Your task to perform on an android device: Go to privacy settings Image 0: 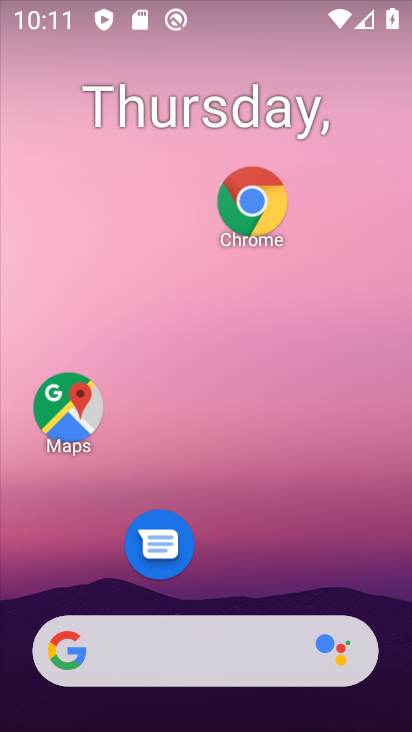
Step 0: drag from (251, 174) to (253, 64)
Your task to perform on an android device: Go to privacy settings Image 1: 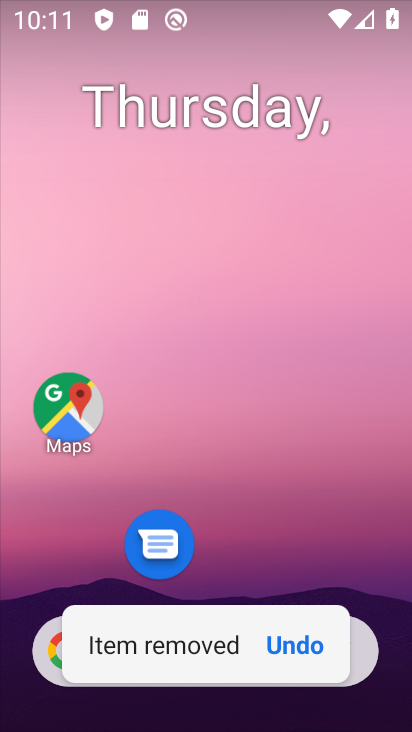
Step 1: click (276, 647)
Your task to perform on an android device: Go to privacy settings Image 2: 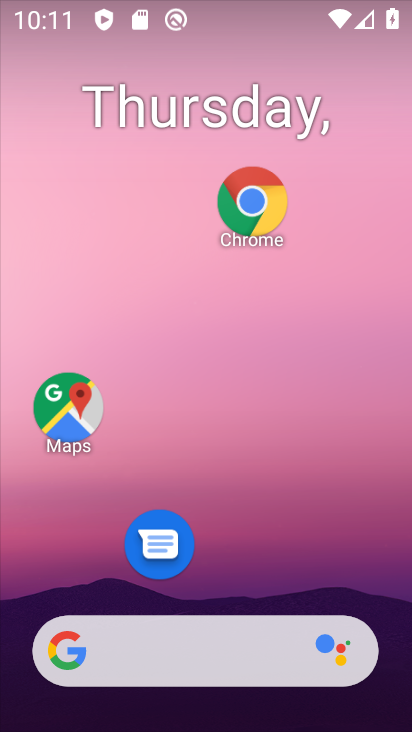
Step 2: drag from (319, 547) to (344, 94)
Your task to perform on an android device: Go to privacy settings Image 3: 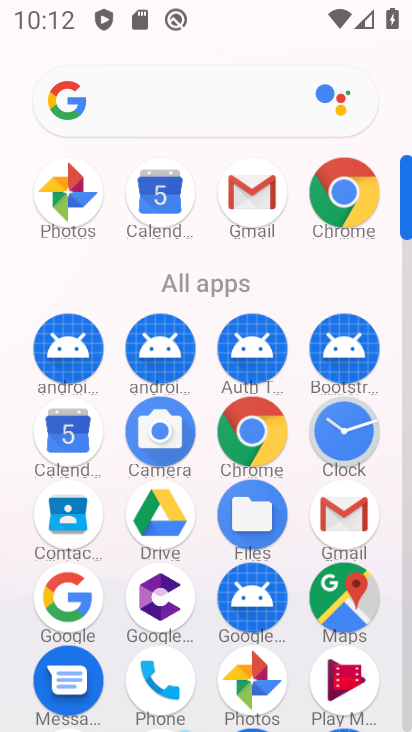
Step 3: drag from (203, 392) to (241, 34)
Your task to perform on an android device: Go to privacy settings Image 4: 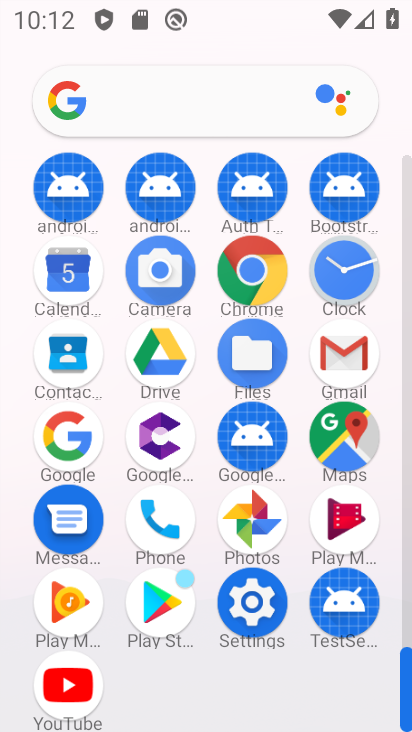
Step 4: click (249, 594)
Your task to perform on an android device: Go to privacy settings Image 5: 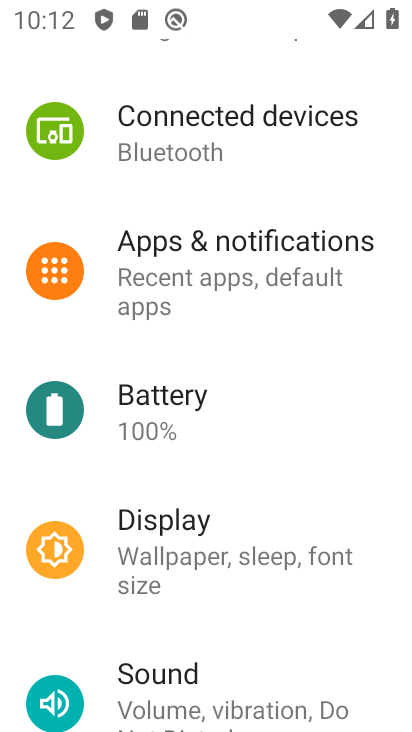
Step 5: drag from (217, 625) to (228, 181)
Your task to perform on an android device: Go to privacy settings Image 6: 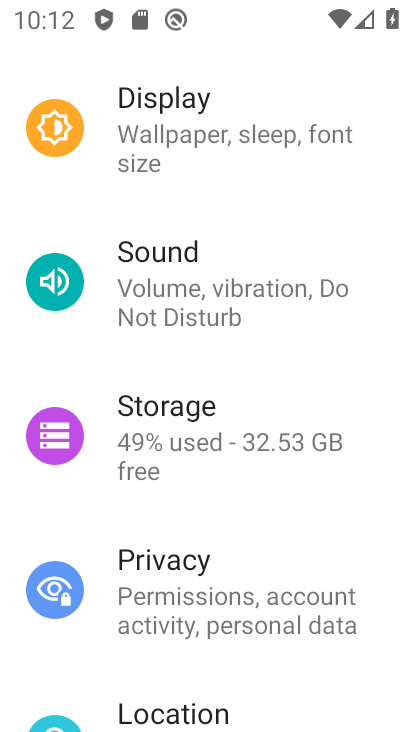
Step 6: click (218, 569)
Your task to perform on an android device: Go to privacy settings Image 7: 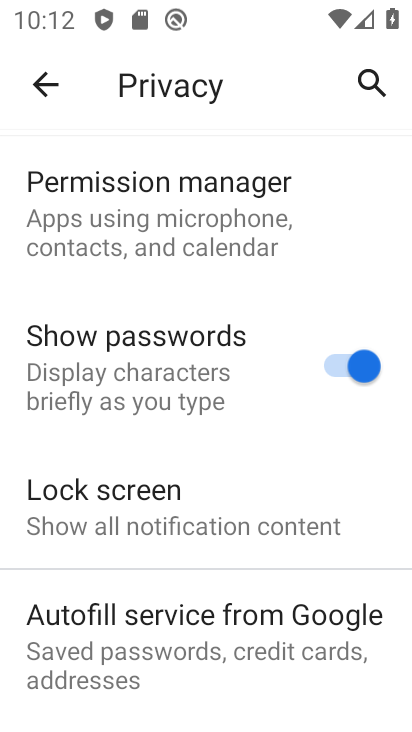
Step 7: drag from (253, 586) to (266, 177)
Your task to perform on an android device: Go to privacy settings Image 8: 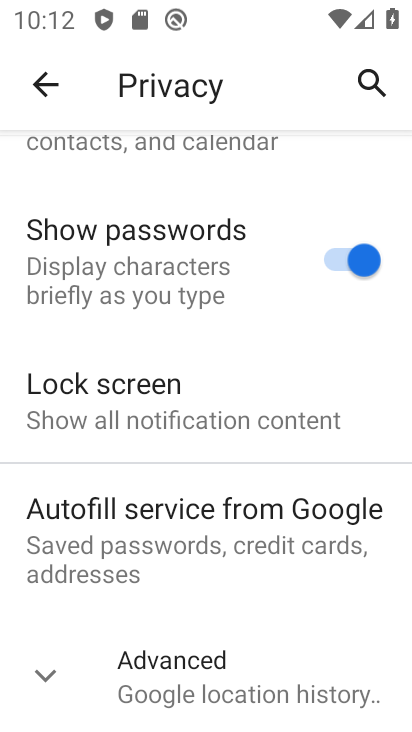
Step 8: click (47, 669)
Your task to perform on an android device: Go to privacy settings Image 9: 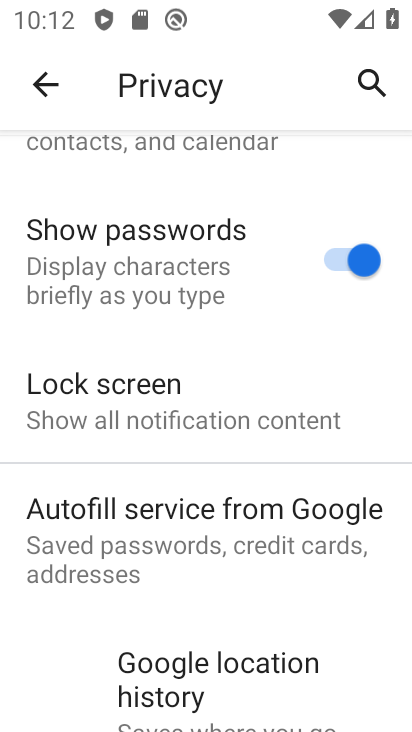
Step 9: task complete